Your task to perform on an android device: visit the assistant section in the google photos Image 0: 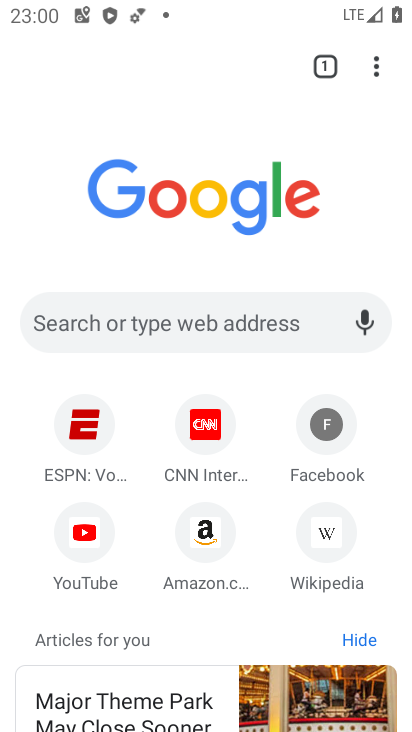
Step 0: press home button
Your task to perform on an android device: visit the assistant section in the google photos Image 1: 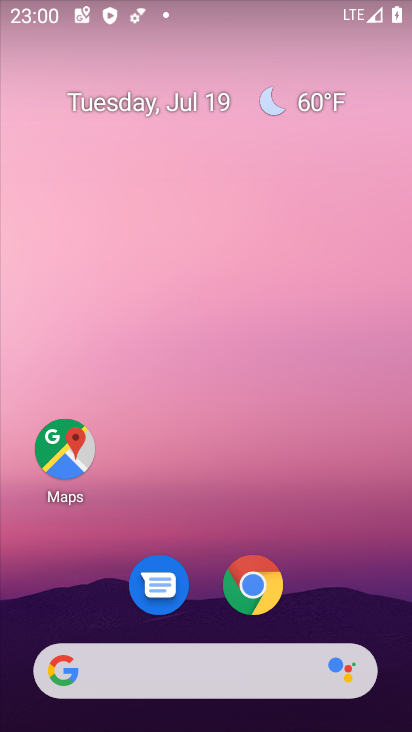
Step 1: drag from (186, 499) to (239, 31)
Your task to perform on an android device: visit the assistant section in the google photos Image 2: 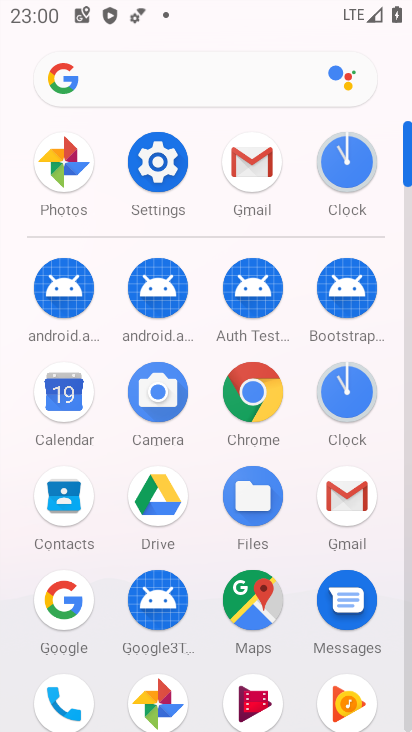
Step 2: click (71, 172)
Your task to perform on an android device: visit the assistant section in the google photos Image 3: 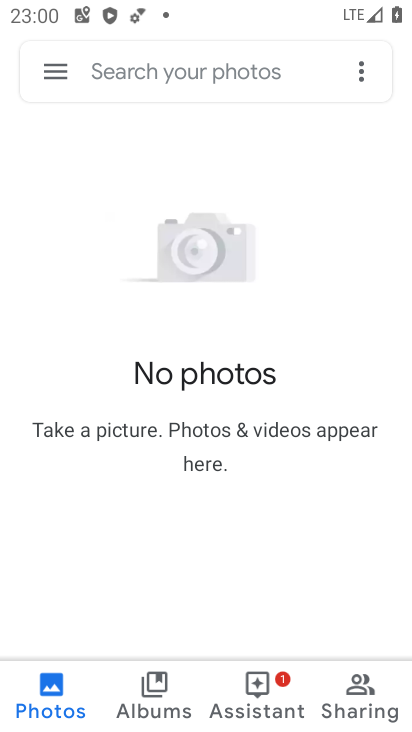
Step 3: click (262, 681)
Your task to perform on an android device: visit the assistant section in the google photos Image 4: 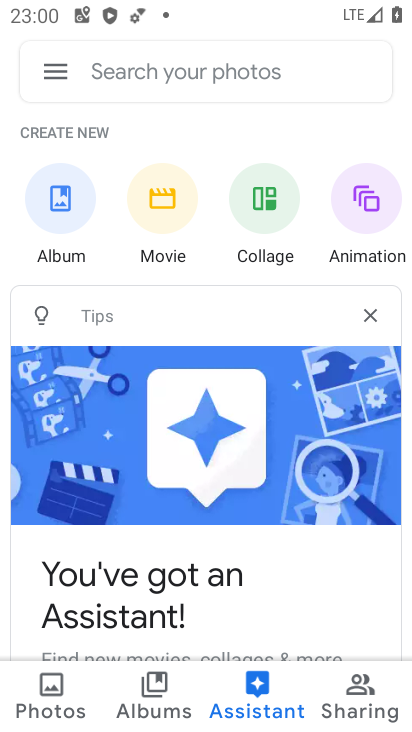
Step 4: task complete